Your task to perform on an android device: Open internet settings Image 0: 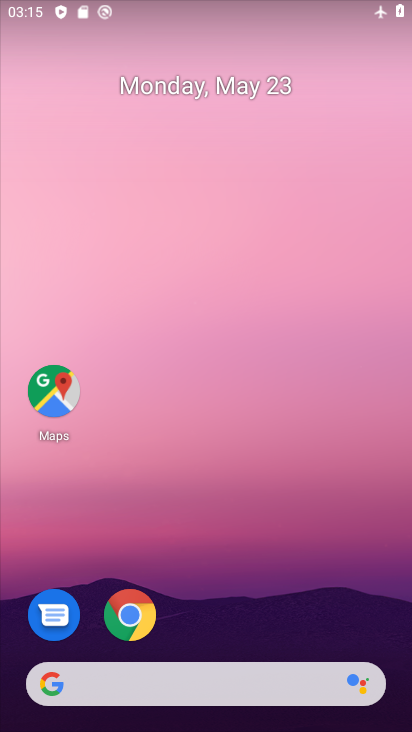
Step 0: drag from (216, 570) to (234, 278)
Your task to perform on an android device: Open internet settings Image 1: 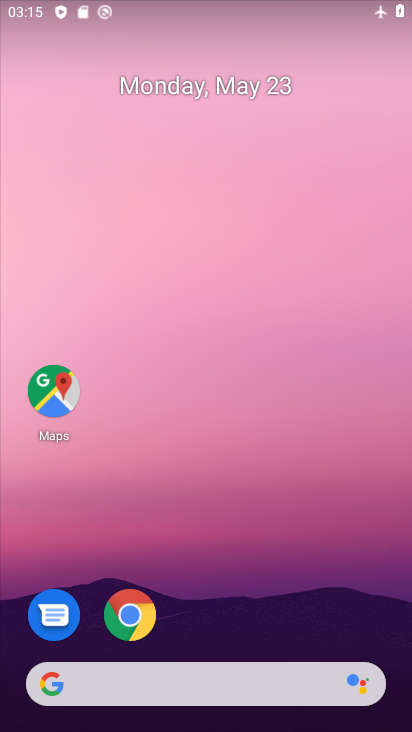
Step 1: drag from (234, 604) to (274, 199)
Your task to perform on an android device: Open internet settings Image 2: 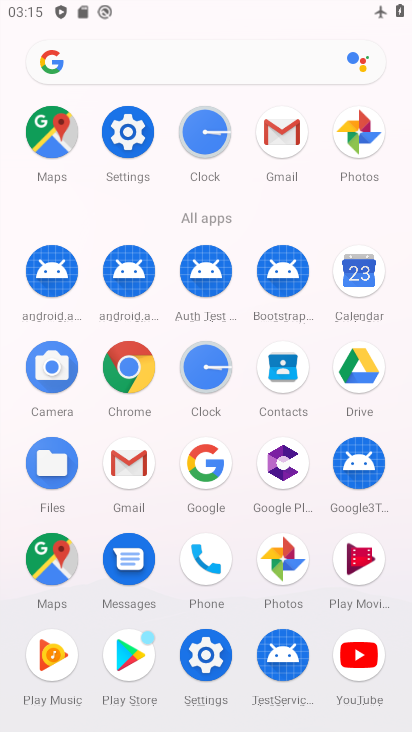
Step 2: click (114, 129)
Your task to perform on an android device: Open internet settings Image 3: 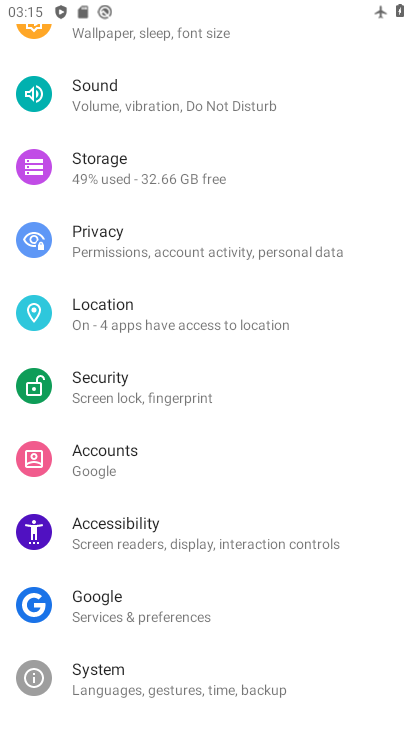
Step 3: drag from (206, 79) to (187, 585)
Your task to perform on an android device: Open internet settings Image 4: 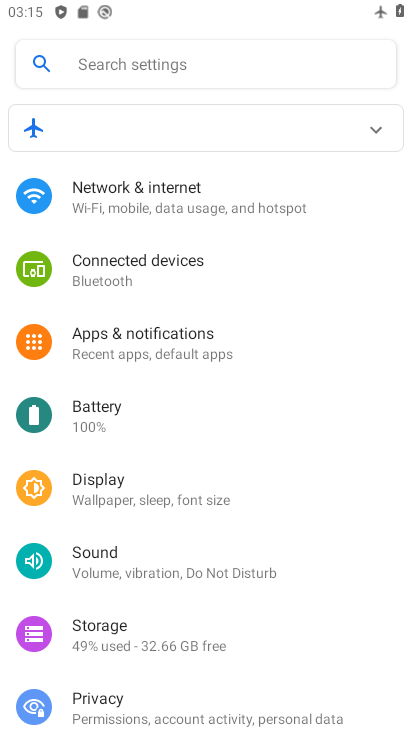
Step 4: click (170, 194)
Your task to perform on an android device: Open internet settings Image 5: 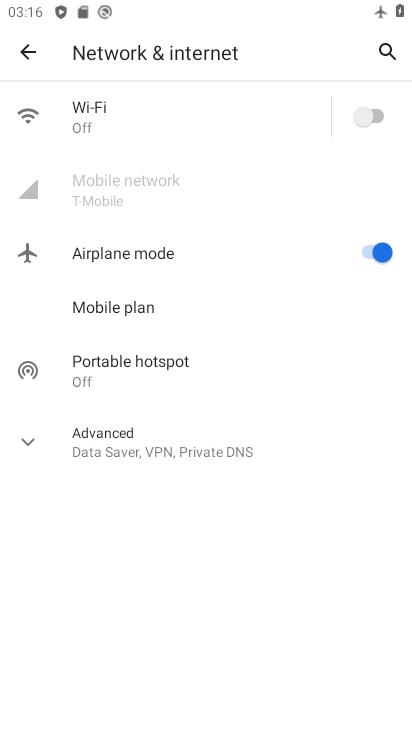
Step 5: task complete